Your task to perform on an android device: Search for sushi restaurants on Maps Image 0: 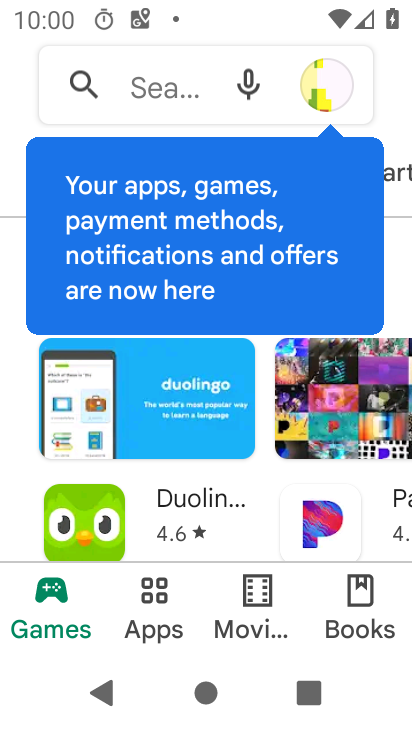
Step 0: press home button
Your task to perform on an android device: Search for sushi restaurants on Maps Image 1: 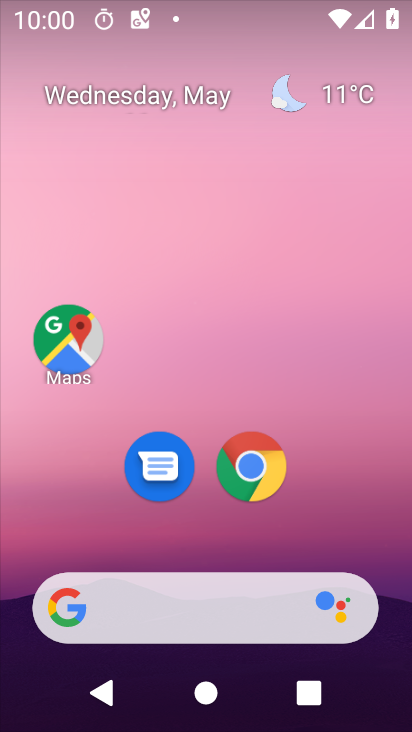
Step 1: click (72, 349)
Your task to perform on an android device: Search for sushi restaurants on Maps Image 2: 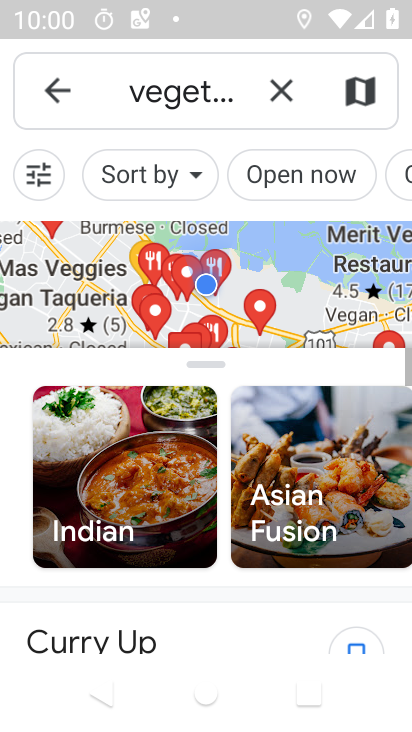
Step 2: click (292, 94)
Your task to perform on an android device: Search for sushi restaurants on Maps Image 3: 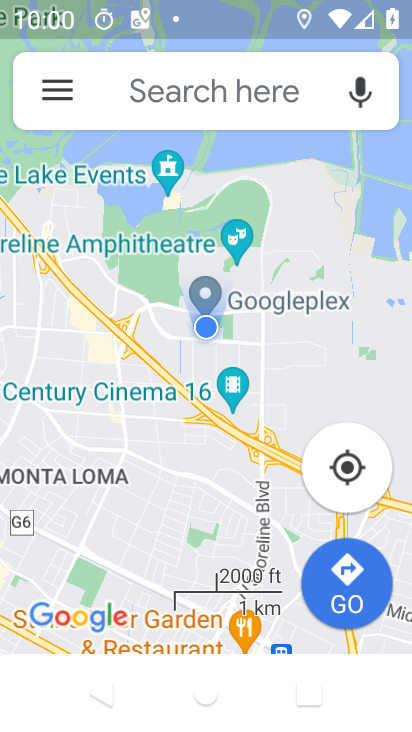
Step 3: click (192, 94)
Your task to perform on an android device: Search for sushi restaurants on Maps Image 4: 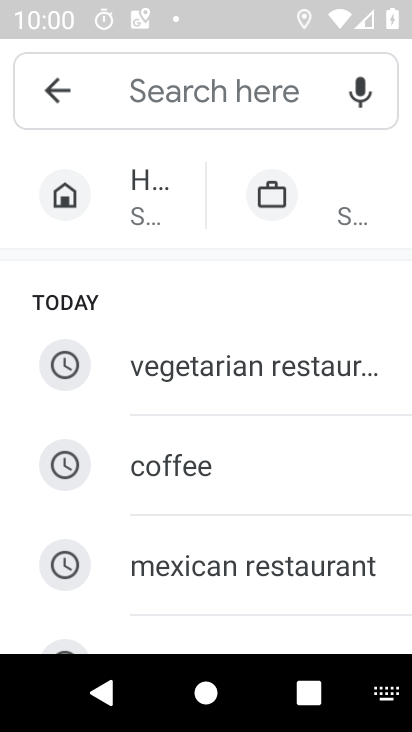
Step 4: drag from (245, 605) to (269, 182)
Your task to perform on an android device: Search for sushi restaurants on Maps Image 5: 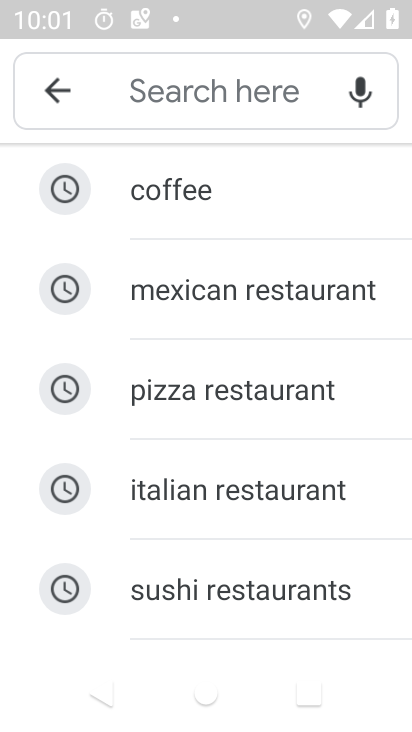
Step 5: click (195, 592)
Your task to perform on an android device: Search for sushi restaurants on Maps Image 6: 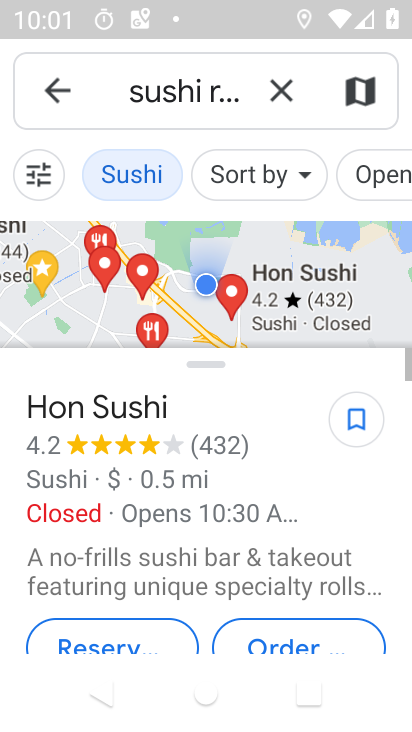
Step 6: task complete